Your task to perform on an android device: turn off sleep mode Image 0: 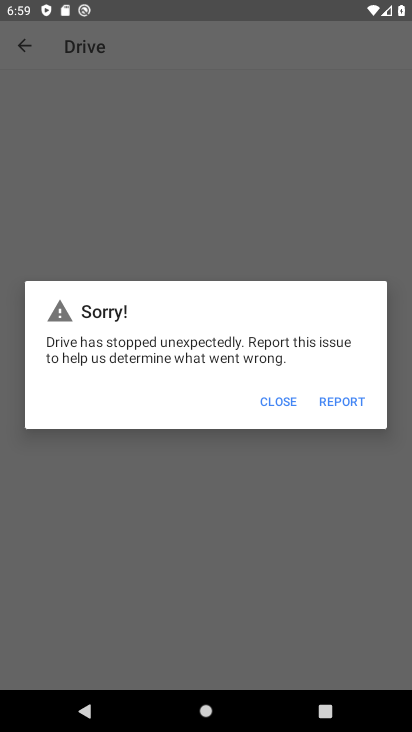
Step 0: press home button
Your task to perform on an android device: turn off sleep mode Image 1: 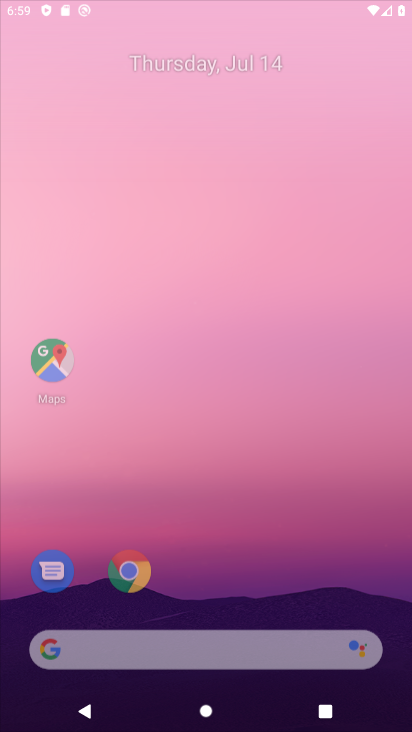
Step 1: drag from (371, 656) to (221, 74)
Your task to perform on an android device: turn off sleep mode Image 2: 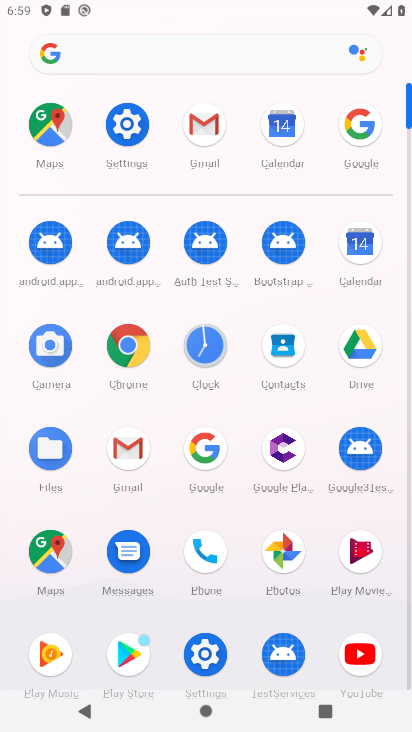
Step 2: click (192, 656)
Your task to perform on an android device: turn off sleep mode Image 3: 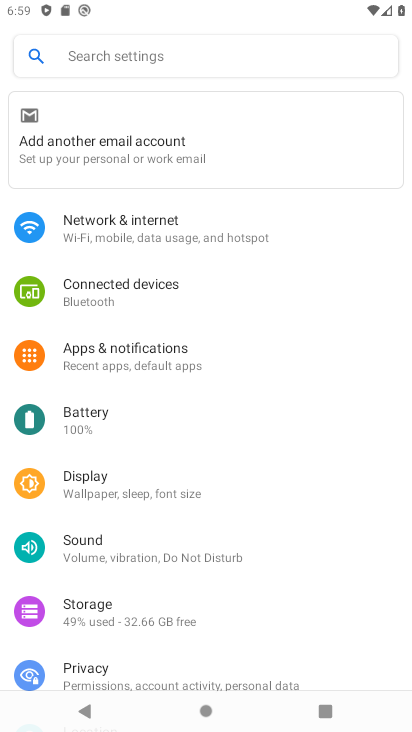
Step 3: task complete